Your task to perform on an android device: Find coffee shops on Maps Image 0: 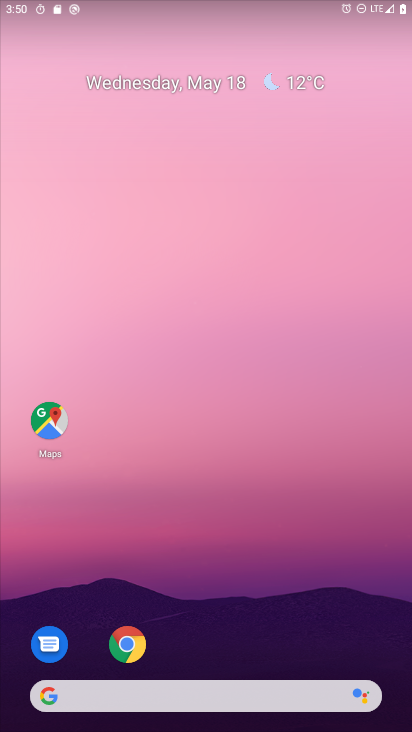
Step 0: click (55, 421)
Your task to perform on an android device: Find coffee shops on Maps Image 1: 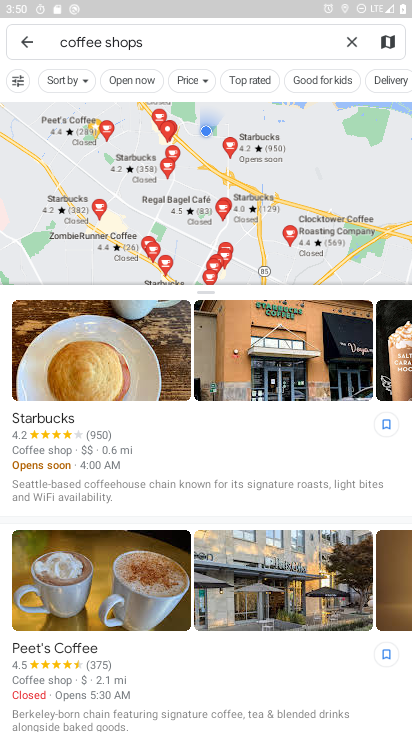
Step 1: click (284, 46)
Your task to perform on an android device: Find coffee shops on Maps Image 2: 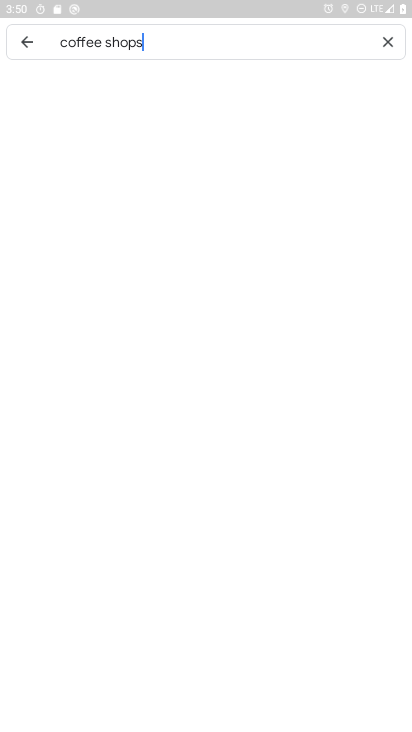
Step 2: task complete